Your task to perform on an android device: Open the stopwatch Image 0: 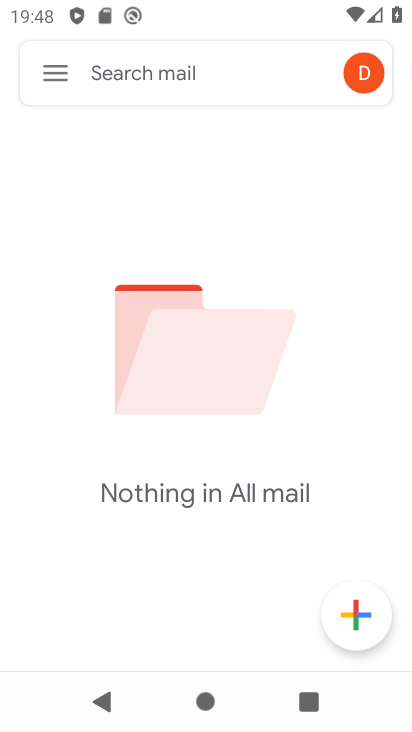
Step 0: press home button
Your task to perform on an android device: Open the stopwatch Image 1: 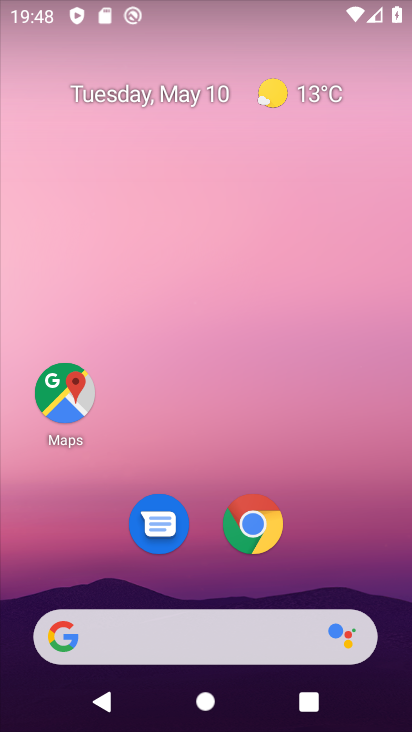
Step 1: drag from (303, 519) to (268, 58)
Your task to perform on an android device: Open the stopwatch Image 2: 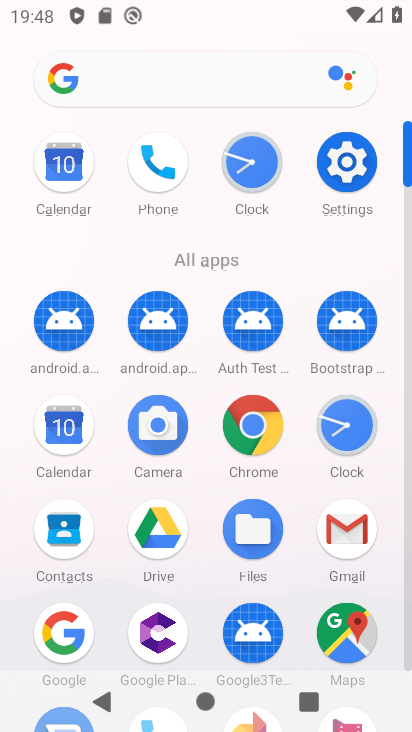
Step 2: click (249, 156)
Your task to perform on an android device: Open the stopwatch Image 3: 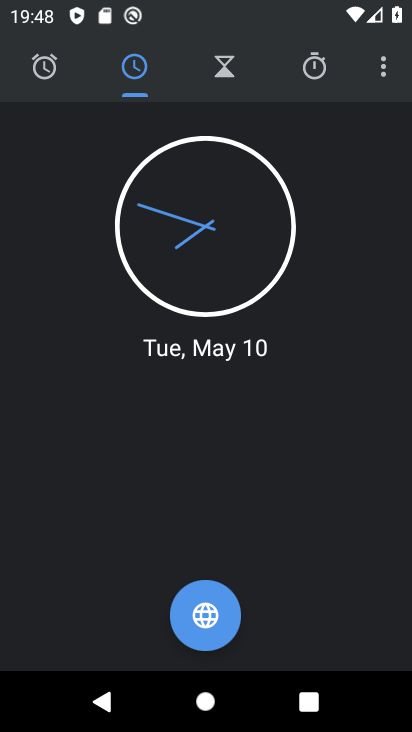
Step 3: click (311, 60)
Your task to perform on an android device: Open the stopwatch Image 4: 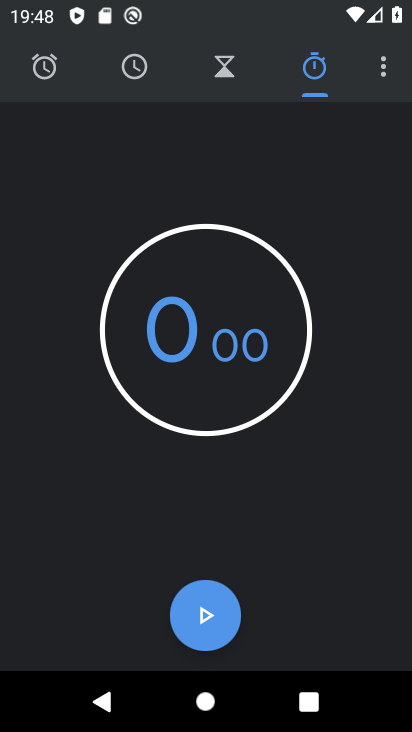
Step 4: task complete